Your task to perform on an android device: toggle data saver in the chrome app Image 0: 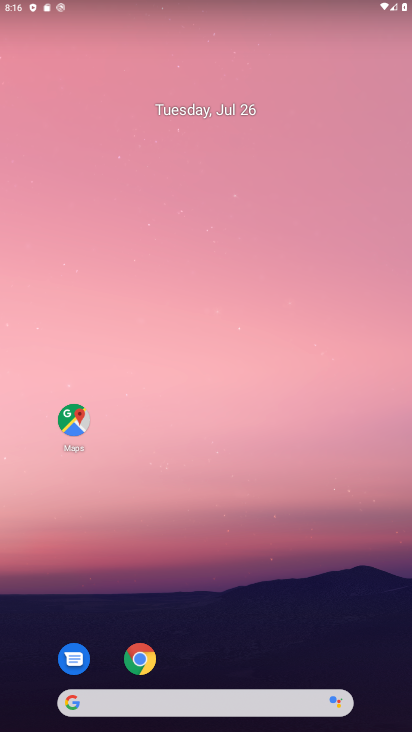
Step 0: click (143, 653)
Your task to perform on an android device: toggle data saver in the chrome app Image 1: 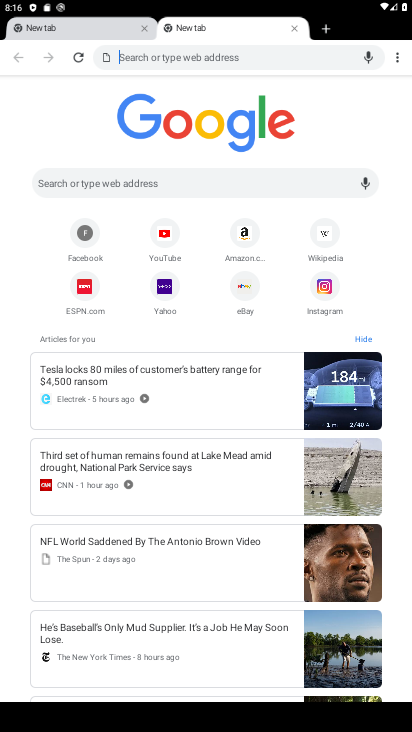
Step 1: click (396, 57)
Your task to perform on an android device: toggle data saver in the chrome app Image 2: 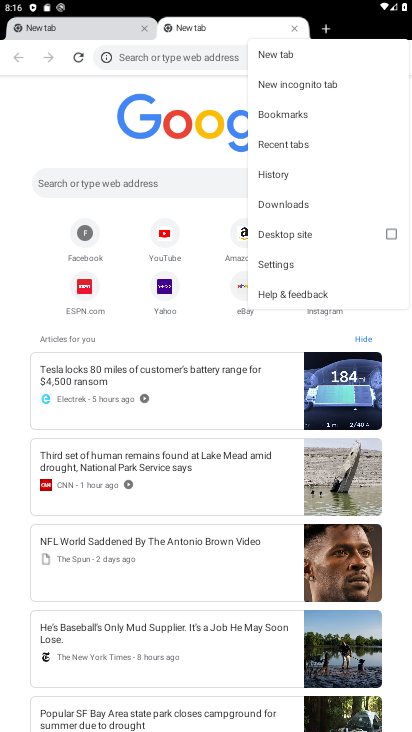
Step 2: click (280, 262)
Your task to perform on an android device: toggle data saver in the chrome app Image 3: 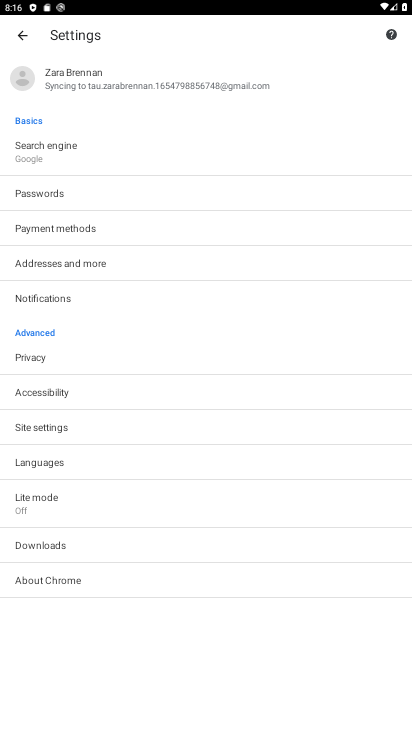
Step 3: click (50, 491)
Your task to perform on an android device: toggle data saver in the chrome app Image 4: 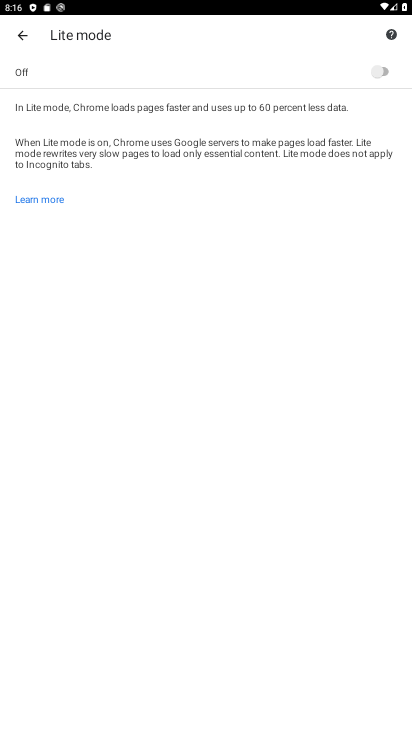
Step 4: click (387, 66)
Your task to perform on an android device: toggle data saver in the chrome app Image 5: 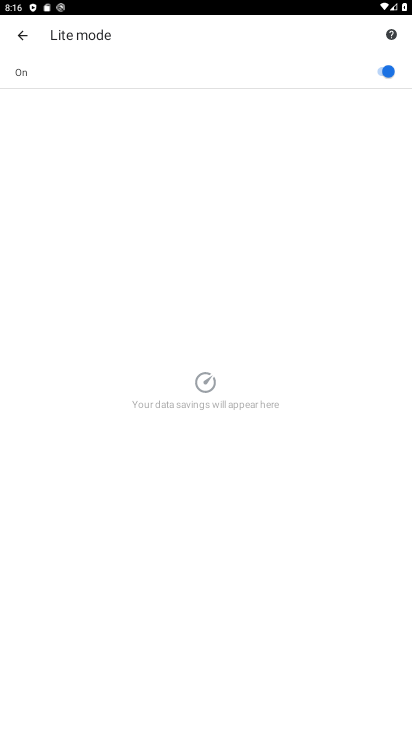
Step 5: task complete